Your task to perform on an android device: Open Google Maps Image 0: 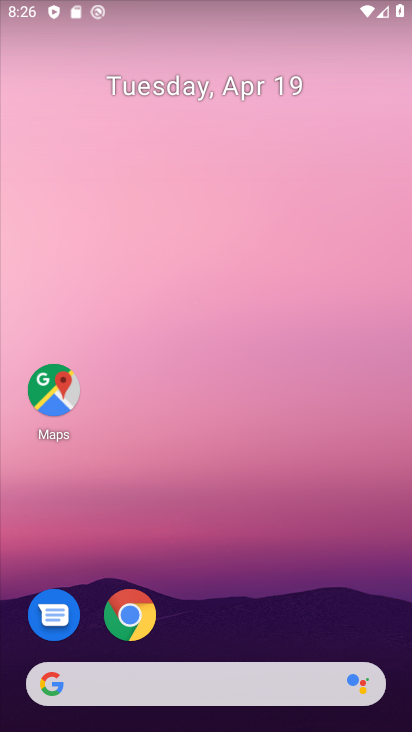
Step 0: click (53, 398)
Your task to perform on an android device: Open Google Maps Image 1: 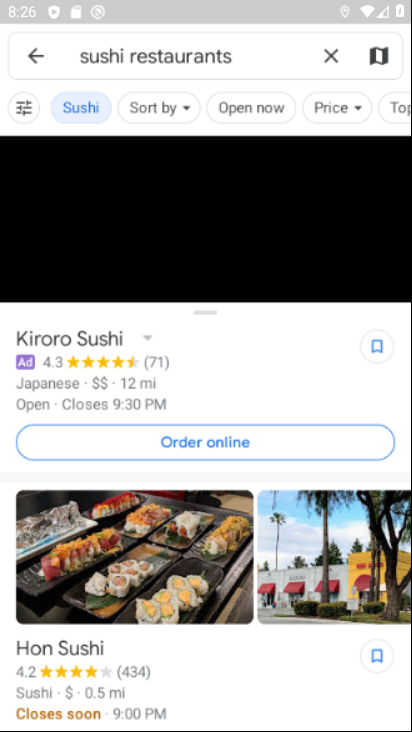
Step 1: task complete